Your task to perform on an android device: Open the web browser Image 0: 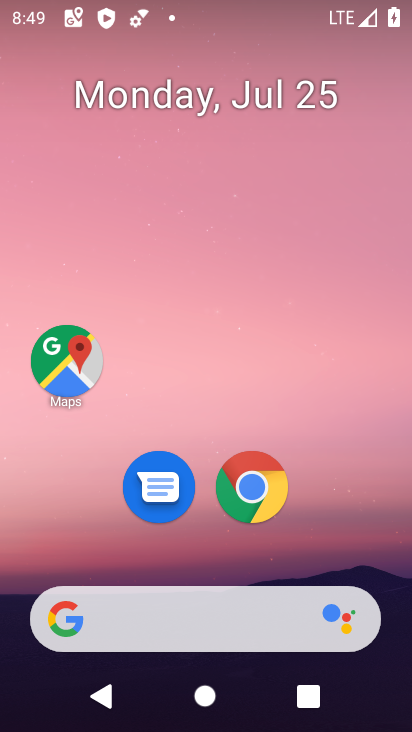
Step 0: click (270, 485)
Your task to perform on an android device: Open the web browser Image 1: 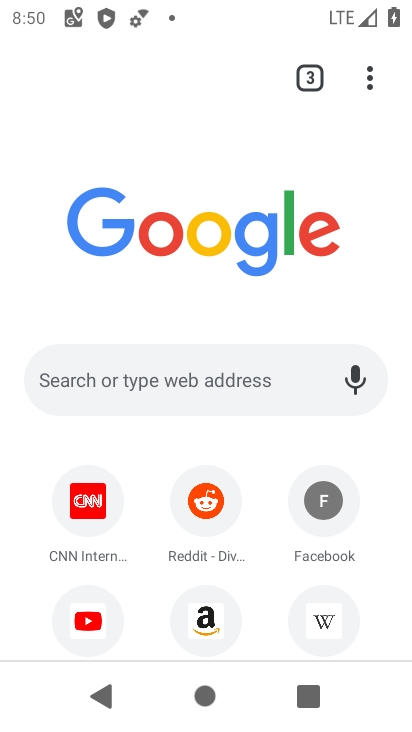
Step 1: task complete